Your task to perform on an android device: Go to Amazon Image 0: 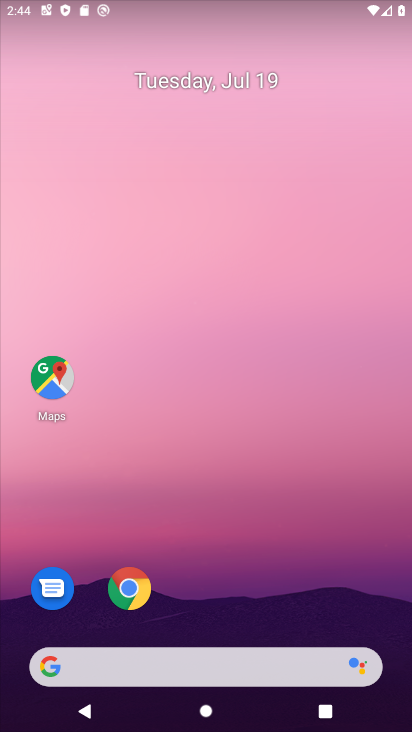
Step 0: click (126, 597)
Your task to perform on an android device: Go to Amazon Image 1: 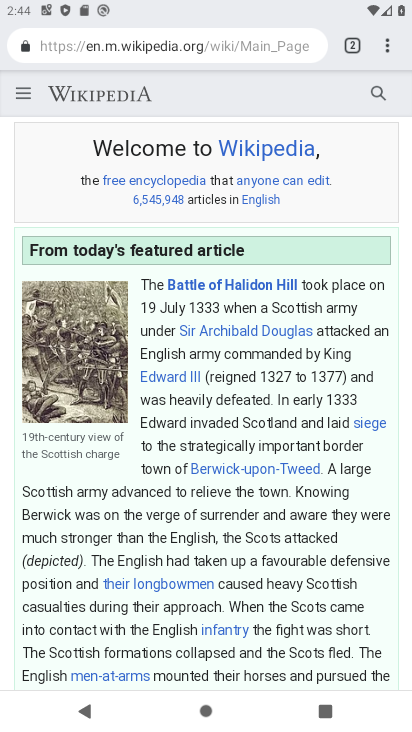
Step 1: click (251, 48)
Your task to perform on an android device: Go to Amazon Image 2: 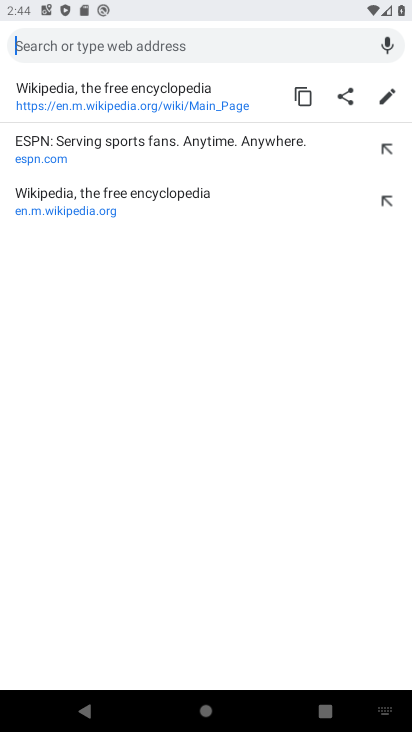
Step 2: type "www.amazon.com"
Your task to perform on an android device: Go to Amazon Image 3: 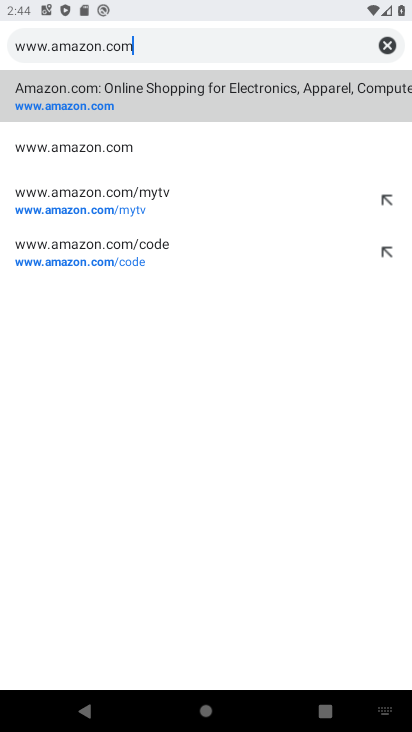
Step 3: click (57, 105)
Your task to perform on an android device: Go to Amazon Image 4: 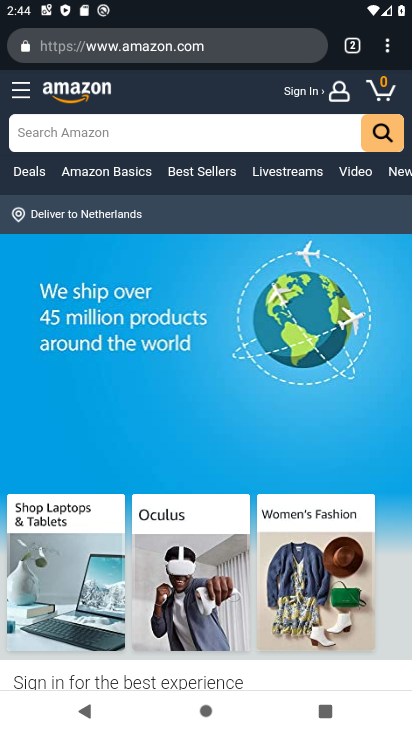
Step 4: task complete